Your task to perform on an android device: Open network settings Image 0: 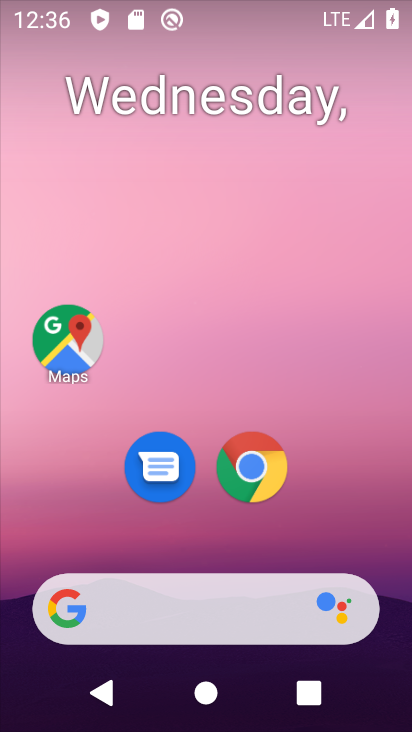
Step 0: drag from (384, 526) to (383, 145)
Your task to perform on an android device: Open network settings Image 1: 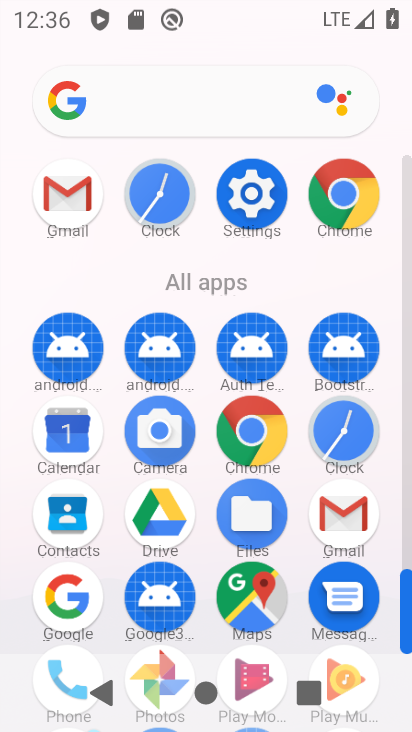
Step 1: click (253, 201)
Your task to perform on an android device: Open network settings Image 2: 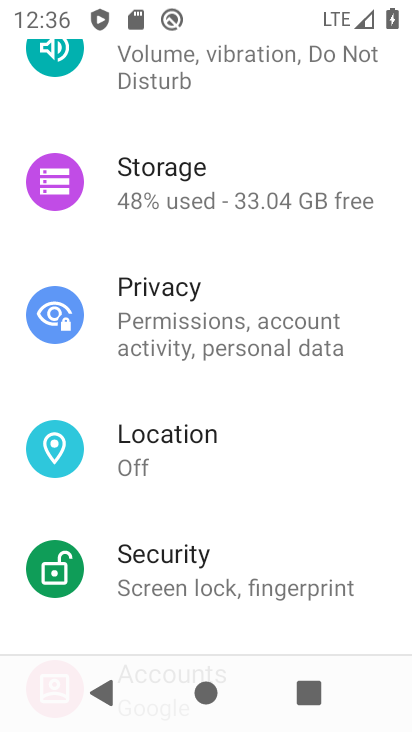
Step 2: drag from (328, 176) to (347, 287)
Your task to perform on an android device: Open network settings Image 3: 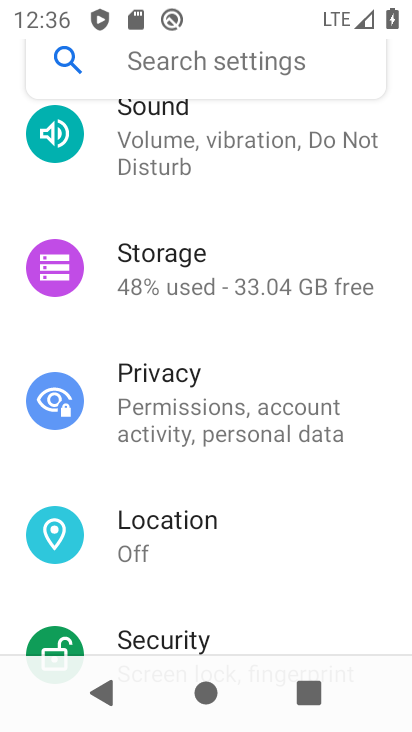
Step 3: drag from (338, 203) to (329, 305)
Your task to perform on an android device: Open network settings Image 4: 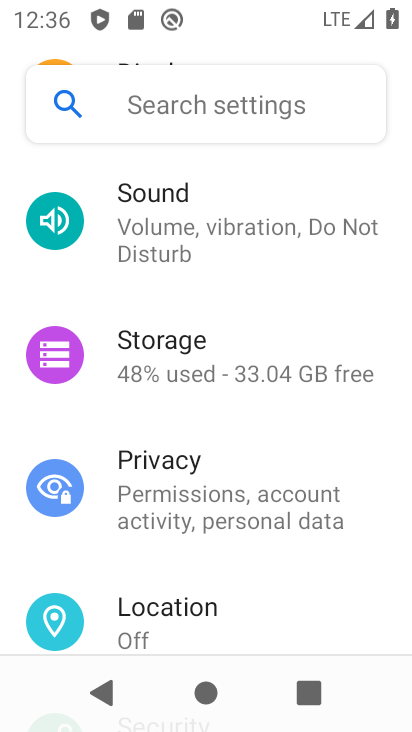
Step 4: drag from (344, 197) to (344, 326)
Your task to perform on an android device: Open network settings Image 5: 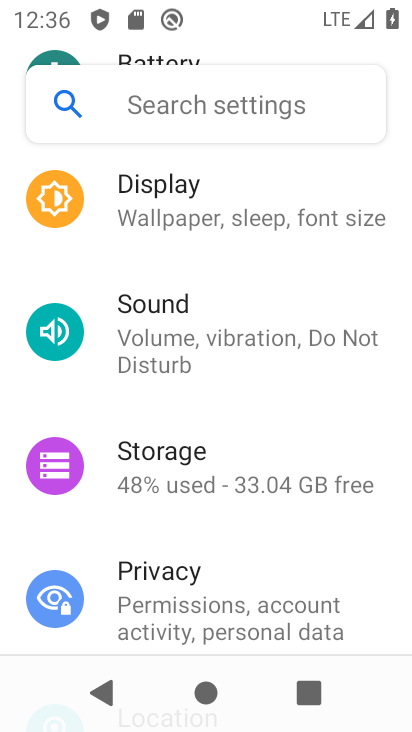
Step 5: drag from (322, 187) to (316, 279)
Your task to perform on an android device: Open network settings Image 6: 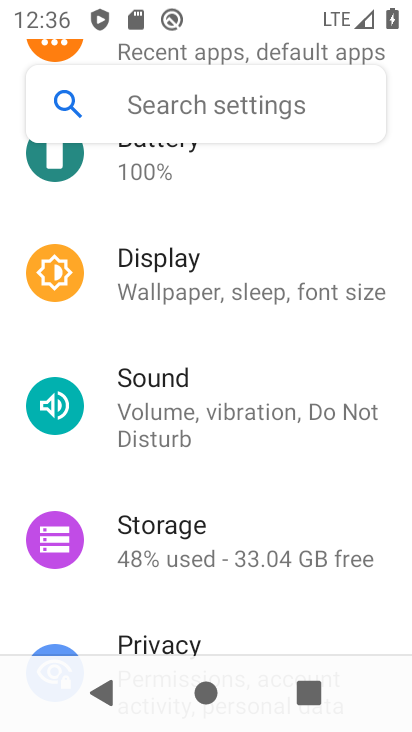
Step 6: drag from (329, 191) to (337, 285)
Your task to perform on an android device: Open network settings Image 7: 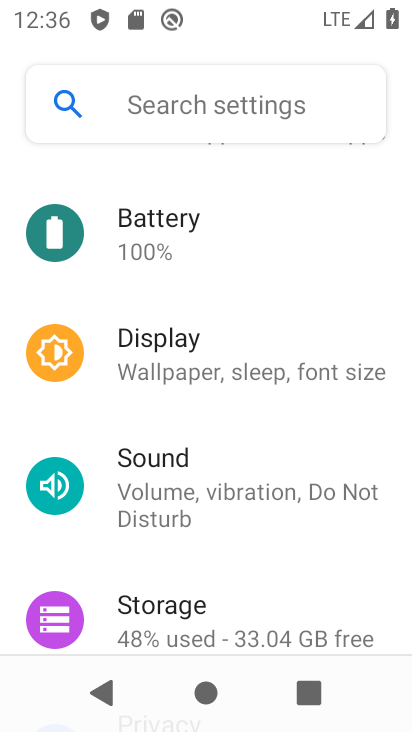
Step 7: drag from (340, 172) to (350, 266)
Your task to perform on an android device: Open network settings Image 8: 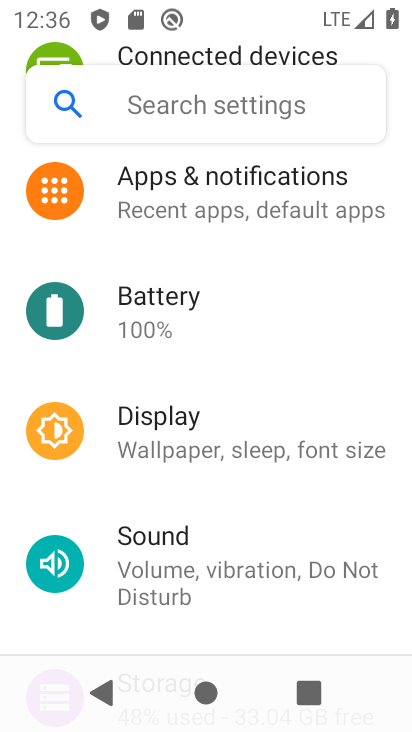
Step 8: drag from (389, 179) to (361, 292)
Your task to perform on an android device: Open network settings Image 9: 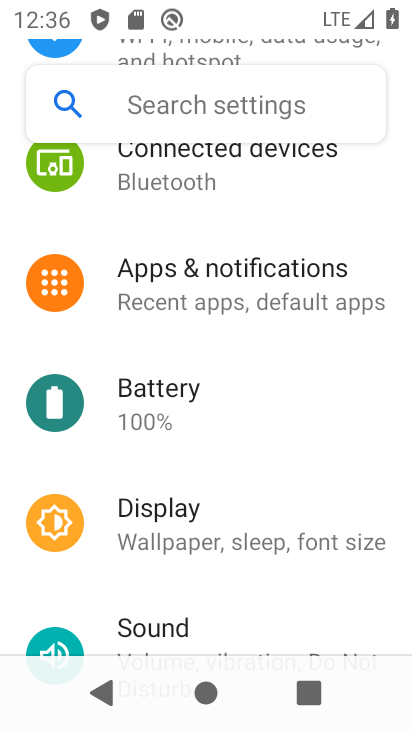
Step 9: drag from (371, 170) to (349, 281)
Your task to perform on an android device: Open network settings Image 10: 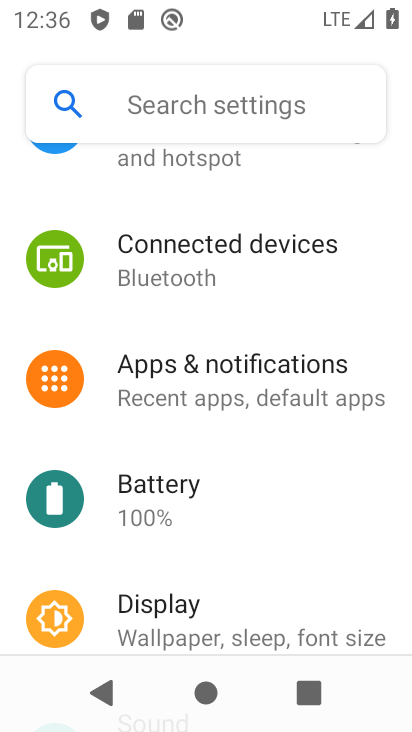
Step 10: drag from (370, 177) to (374, 283)
Your task to perform on an android device: Open network settings Image 11: 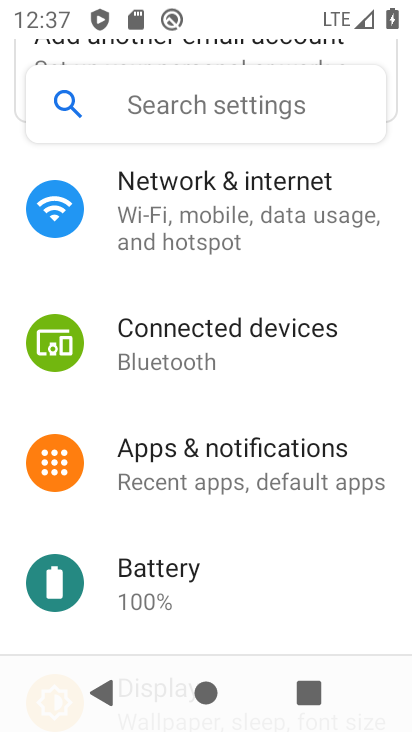
Step 11: click (342, 220)
Your task to perform on an android device: Open network settings Image 12: 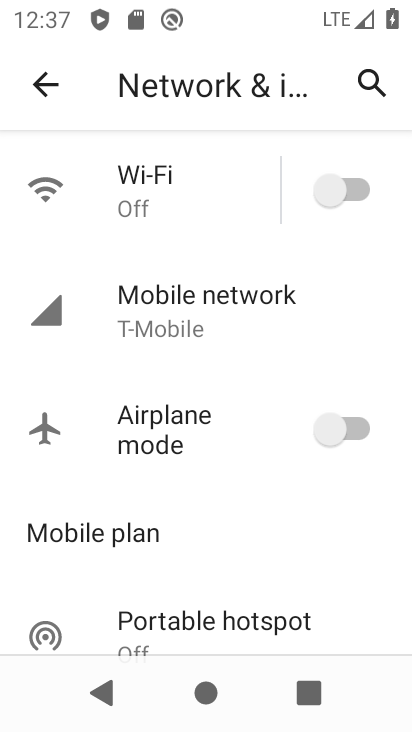
Step 12: task complete